Your task to perform on an android device: Open Wikipedia Image 0: 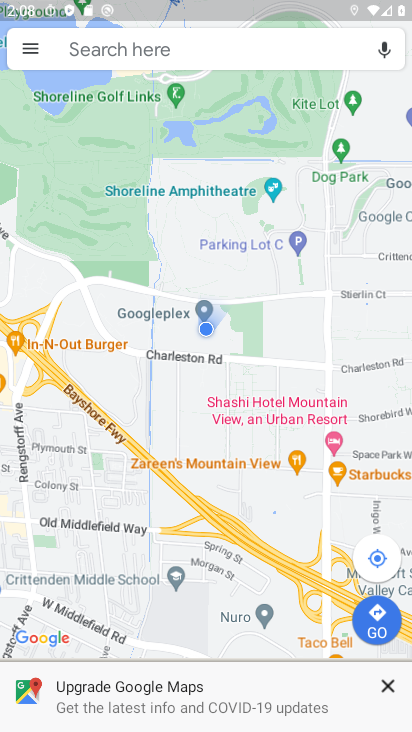
Step 0: press home button
Your task to perform on an android device: Open Wikipedia Image 1: 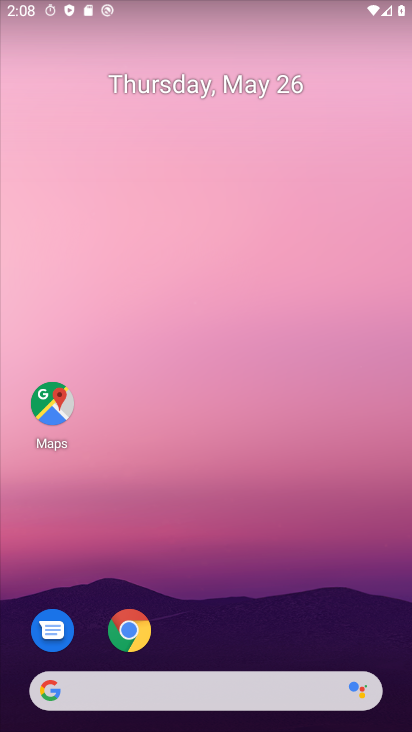
Step 1: click (140, 642)
Your task to perform on an android device: Open Wikipedia Image 2: 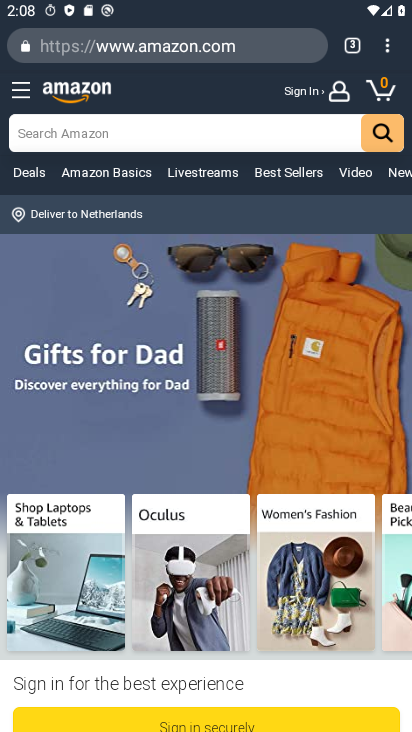
Step 2: click (351, 50)
Your task to perform on an android device: Open Wikipedia Image 3: 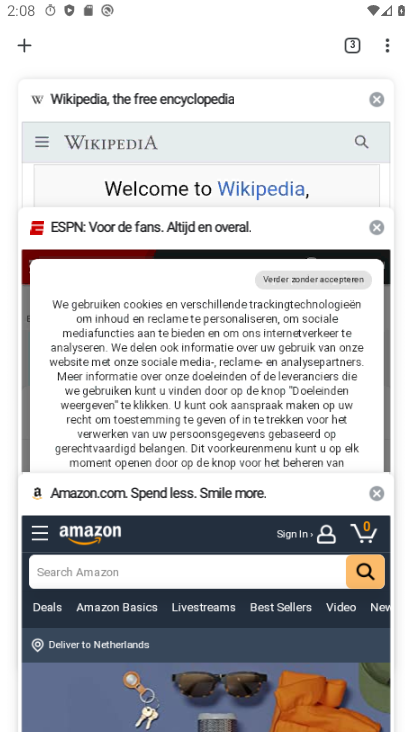
Step 3: click (189, 156)
Your task to perform on an android device: Open Wikipedia Image 4: 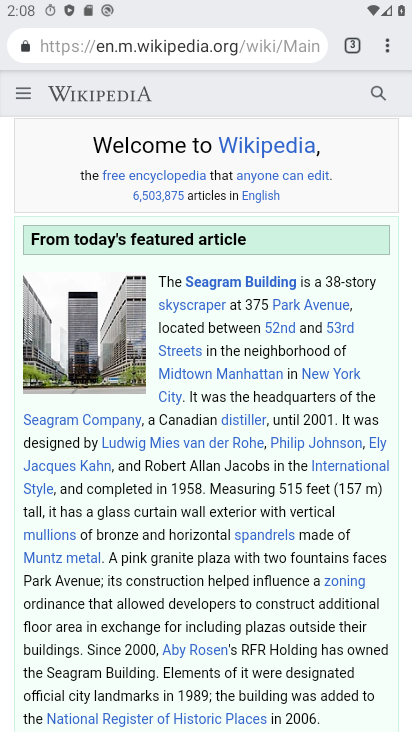
Step 4: task complete